Your task to perform on an android device: Open calendar and show me the third week of next month Image 0: 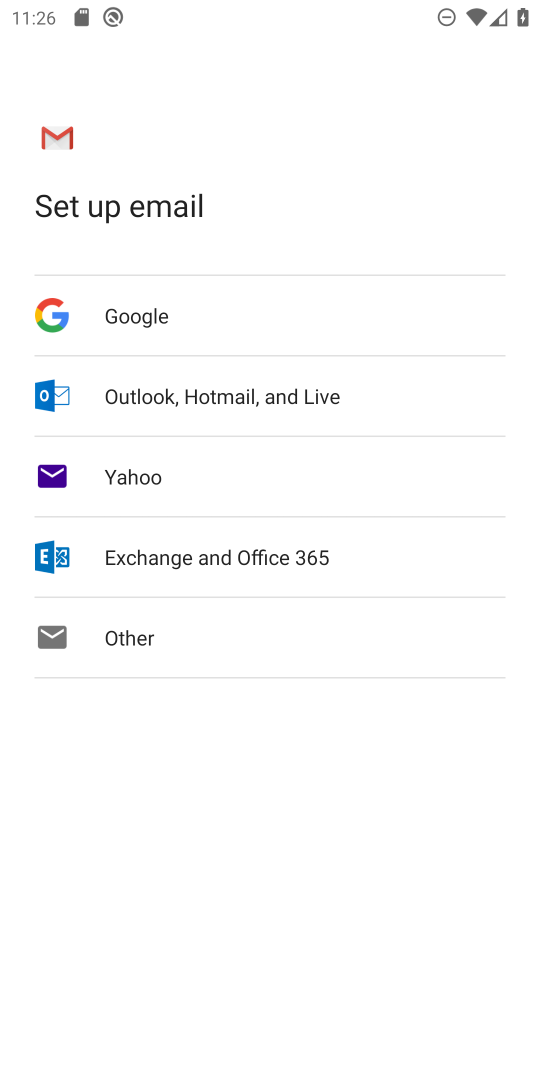
Step 0: press home button
Your task to perform on an android device: Open calendar and show me the third week of next month Image 1: 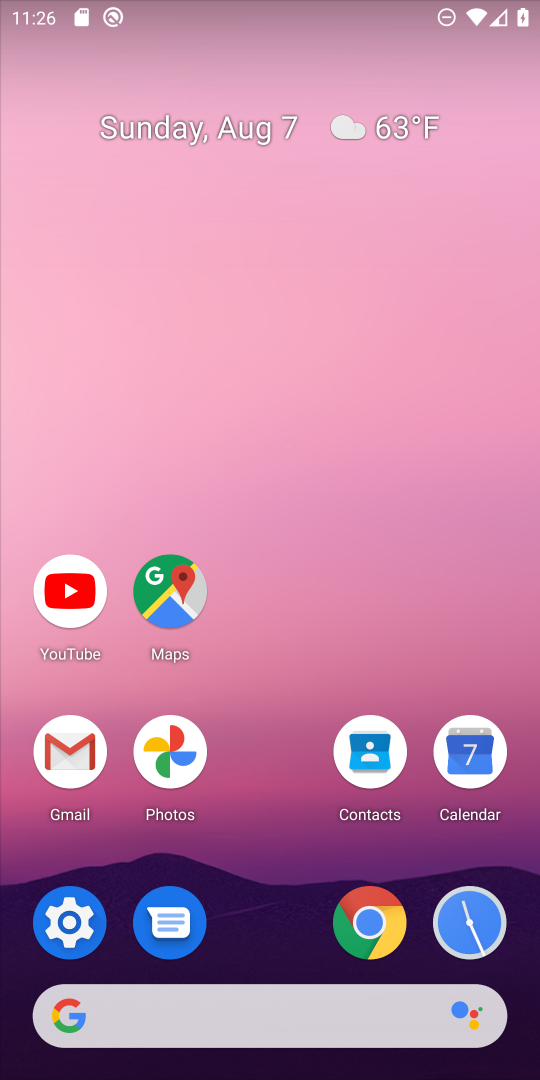
Step 1: click (475, 755)
Your task to perform on an android device: Open calendar and show me the third week of next month Image 2: 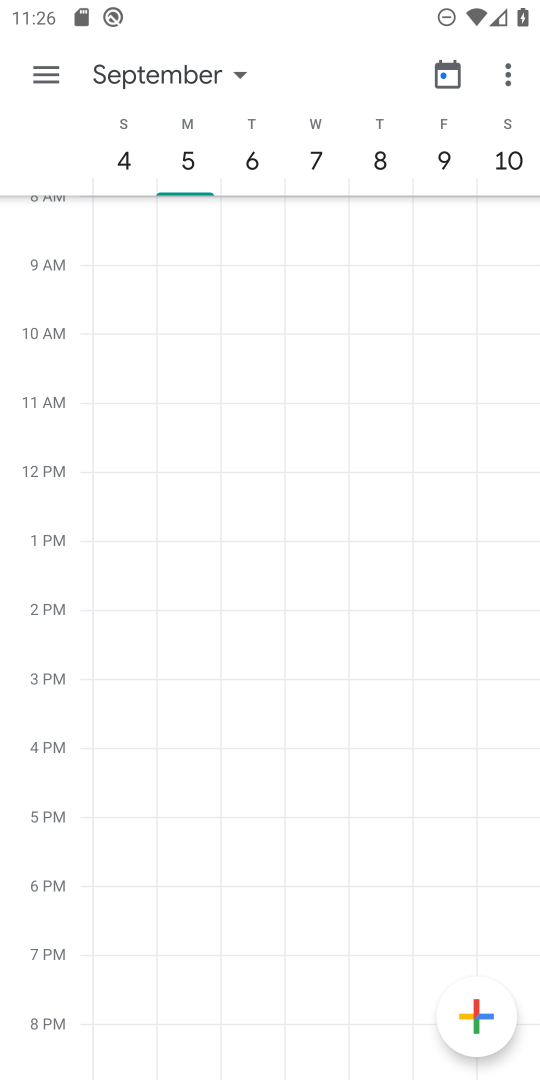
Step 2: click (510, 85)
Your task to perform on an android device: Open calendar and show me the third week of next month Image 3: 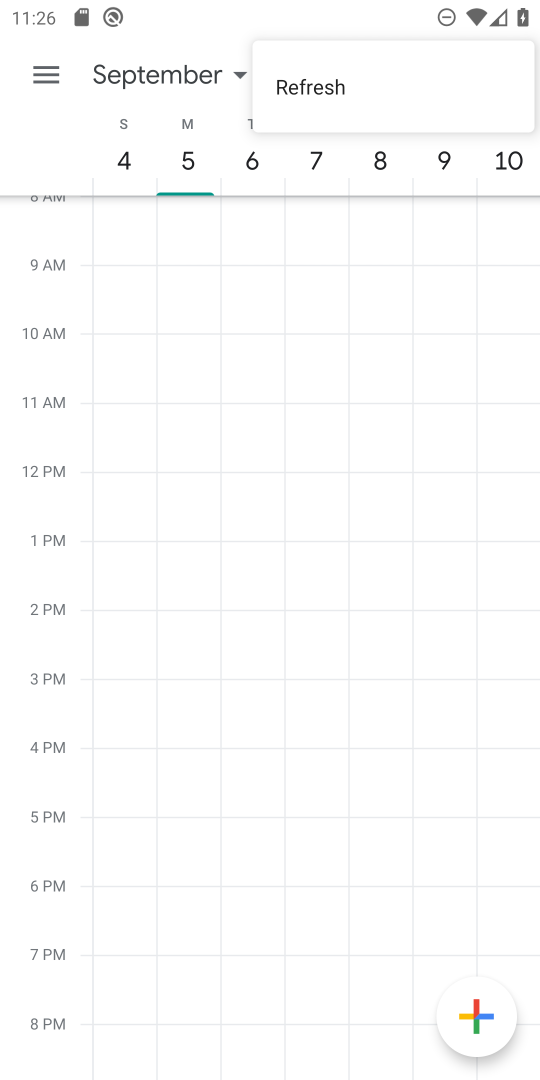
Step 3: click (401, 355)
Your task to perform on an android device: Open calendar and show me the third week of next month Image 4: 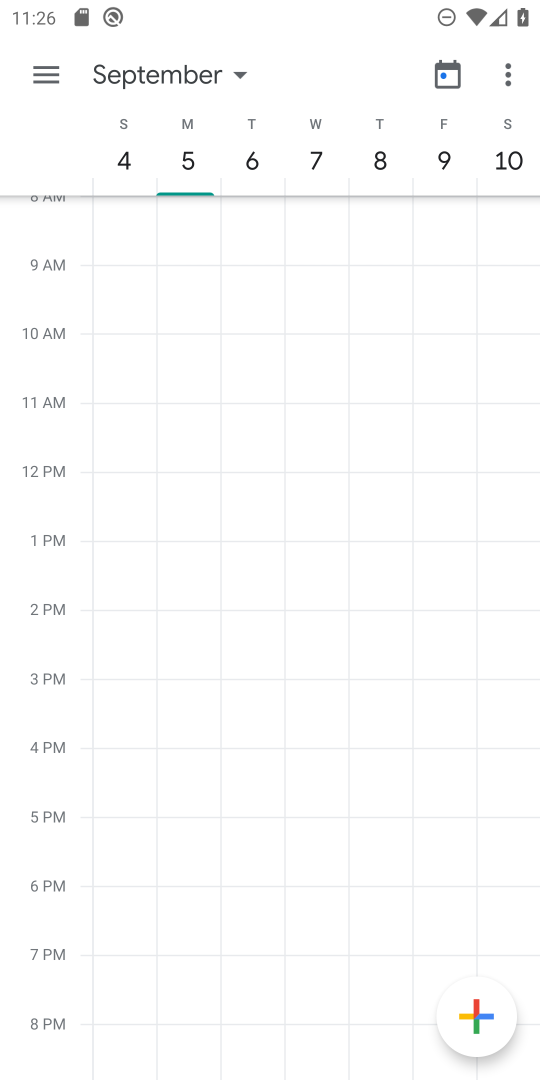
Step 4: click (248, 71)
Your task to perform on an android device: Open calendar and show me the third week of next month Image 5: 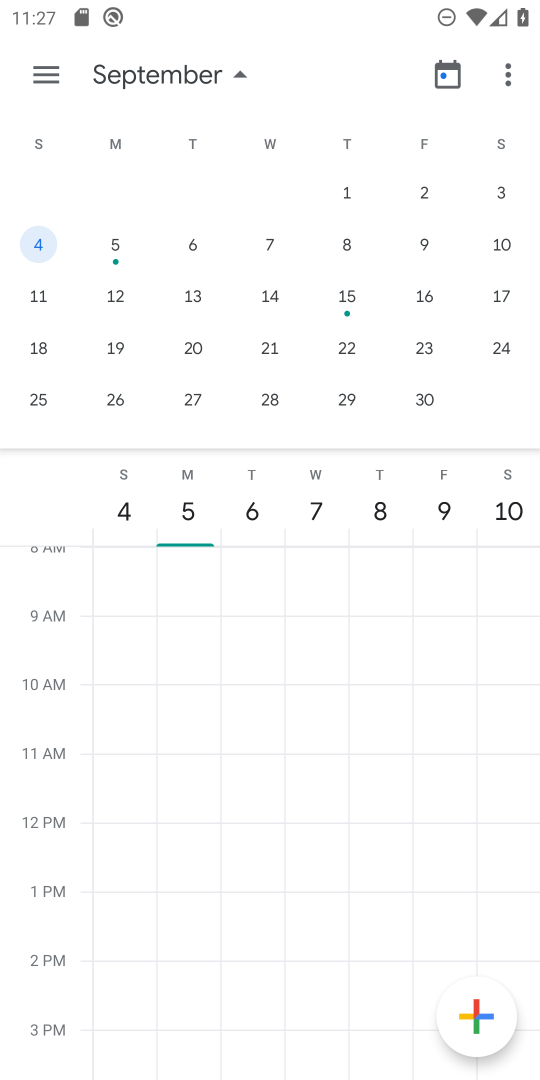
Step 5: click (121, 294)
Your task to perform on an android device: Open calendar and show me the third week of next month Image 6: 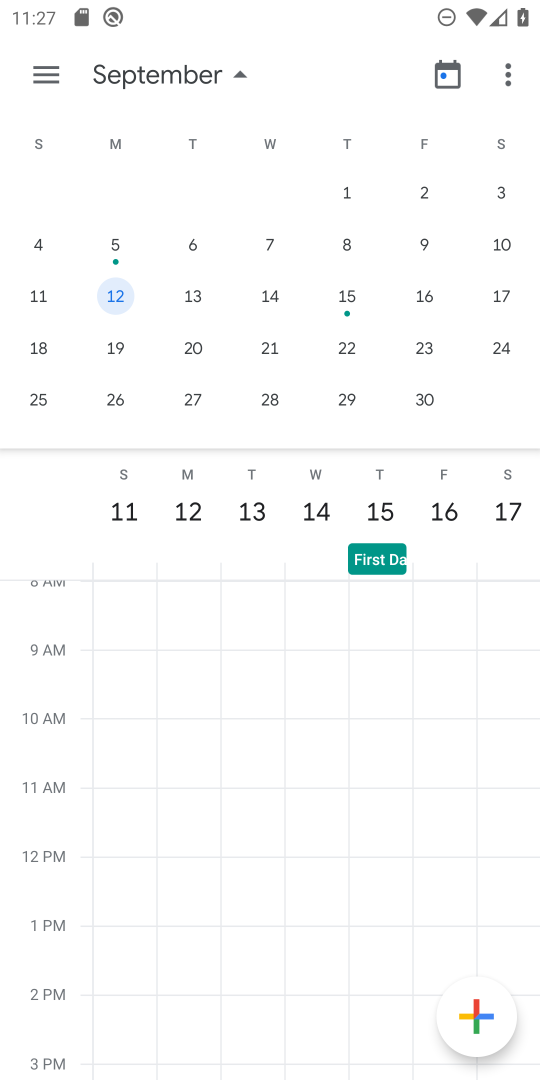
Step 6: task complete